Your task to perform on an android device: clear all cookies in the chrome app Image 0: 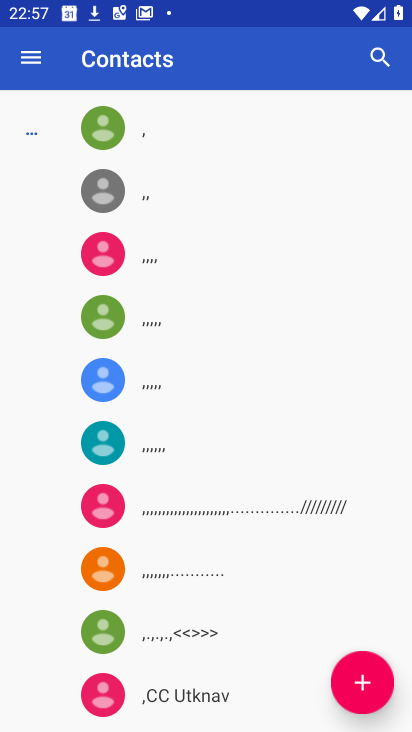
Step 0: press home button
Your task to perform on an android device: clear all cookies in the chrome app Image 1: 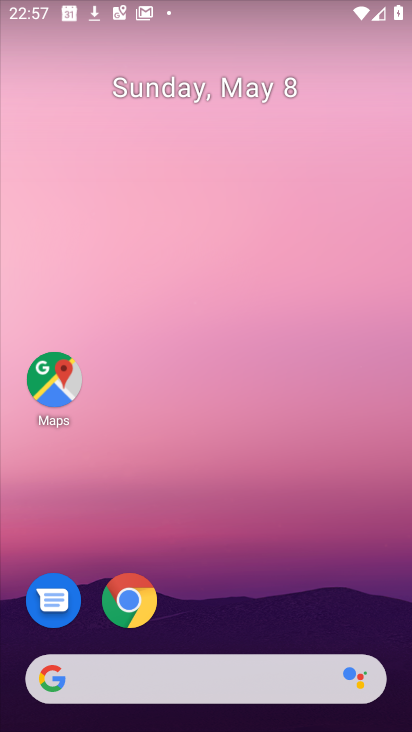
Step 1: drag from (240, 718) to (368, 295)
Your task to perform on an android device: clear all cookies in the chrome app Image 2: 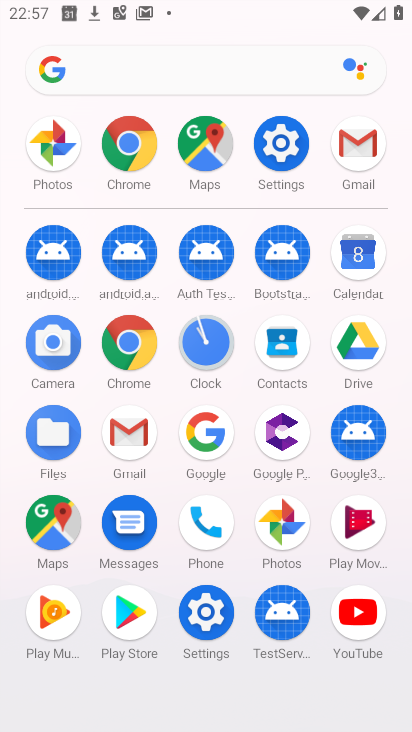
Step 2: click (134, 157)
Your task to perform on an android device: clear all cookies in the chrome app Image 3: 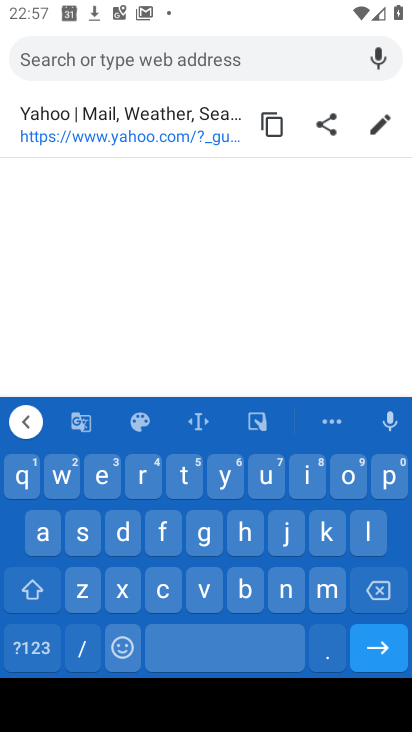
Step 3: press back button
Your task to perform on an android device: clear all cookies in the chrome app Image 4: 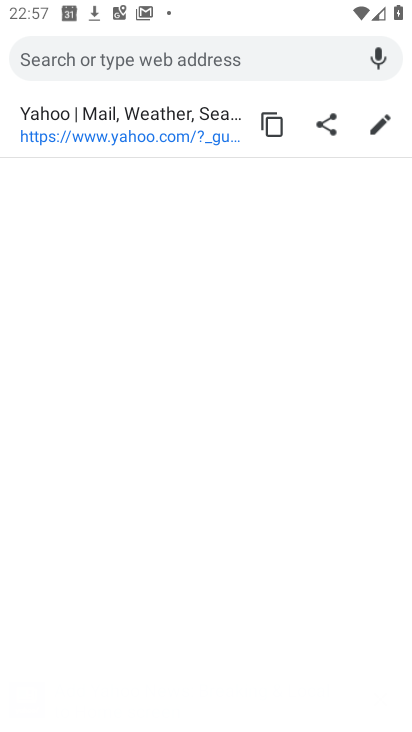
Step 4: press back button
Your task to perform on an android device: clear all cookies in the chrome app Image 5: 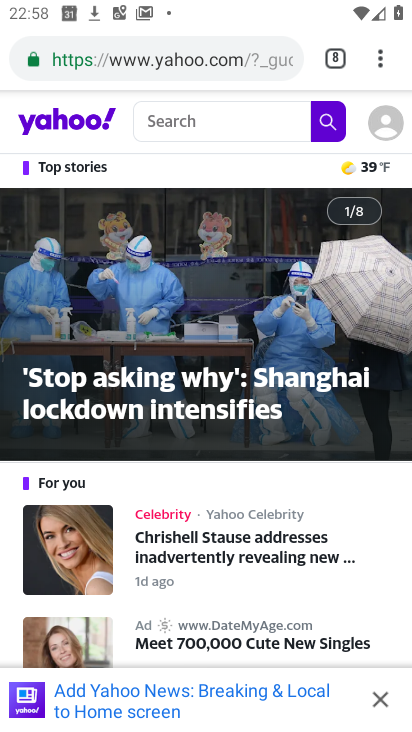
Step 5: click (376, 68)
Your task to perform on an android device: clear all cookies in the chrome app Image 6: 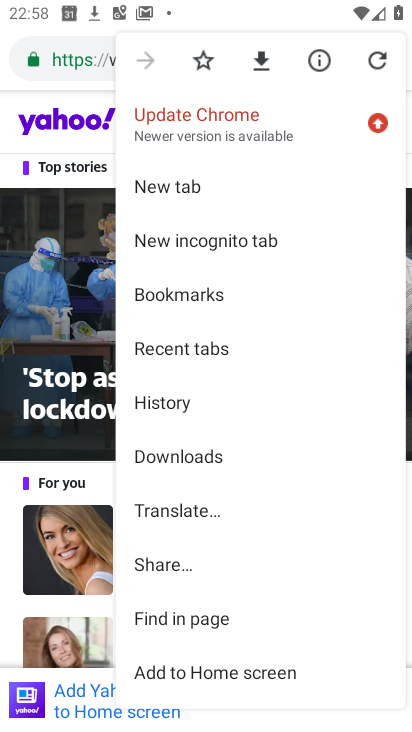
Step 6: drag from (190, 550) to (190, 331)
Your task to perform on an android device: clear all cookies in the chrome app Image 7: 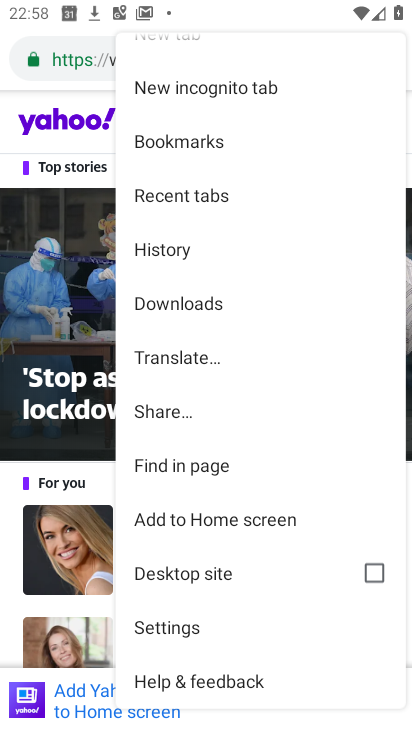
Step 7: click (185, 626)
Your task to perform on an android device: clear all cookies in the chrome app Image 8: 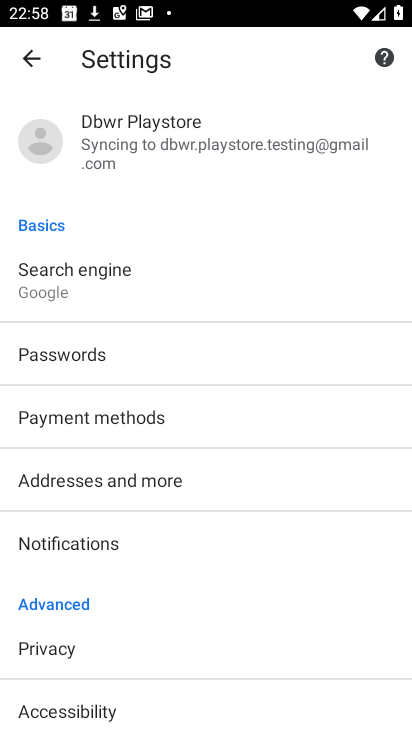
Step 8: drag from (174, 625) to (199, 507)
Your task to perform on an android device: clear all cookies in the chrome app Image 9: 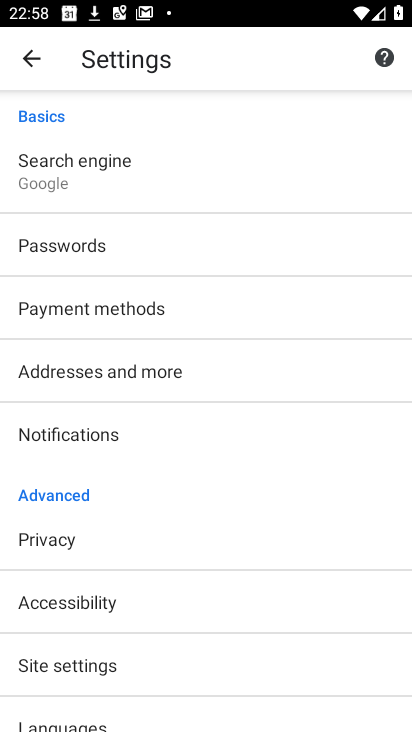
Step 9: click (47, 664)
Your task to perform on an android device: clear all cookies in the chrome app Image 10: 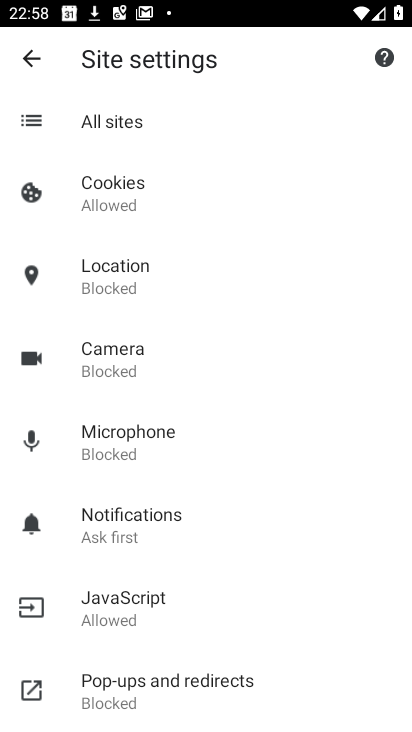
Step 10: click (37, 69)
Your task to perform on an android device: clear all cookies in the chrome app Image 11: 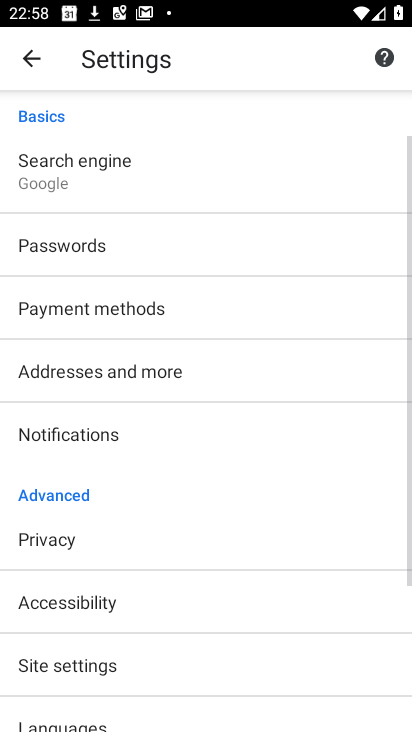
Step 11: click (81, 534)
Your task to perform on an android device: clear all cookies in the chrome app Image 12: 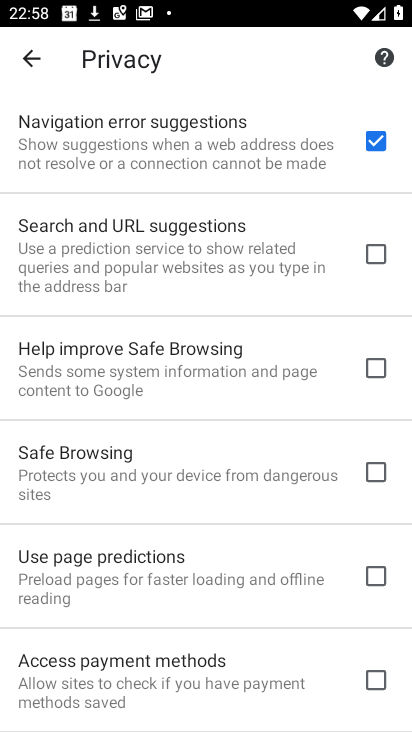
Step 12: drag from (138, 557) to (275, 170)
Your task to perform on an android device: clear all cookies in the chrome app Image 13: 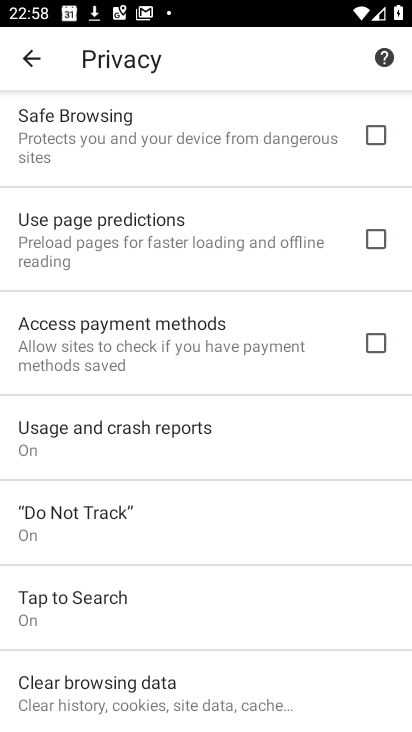
Step 13: click (122, 681)
Your task to perform on an android device: clear all cookies in the chrome app Image 14: 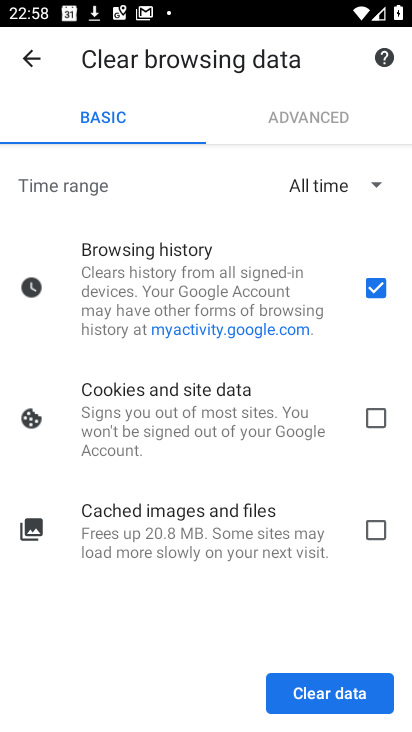
Step 14: click (375, 422)
Your task to perform on an android device: clear all cookies in the chrome app Image 15: 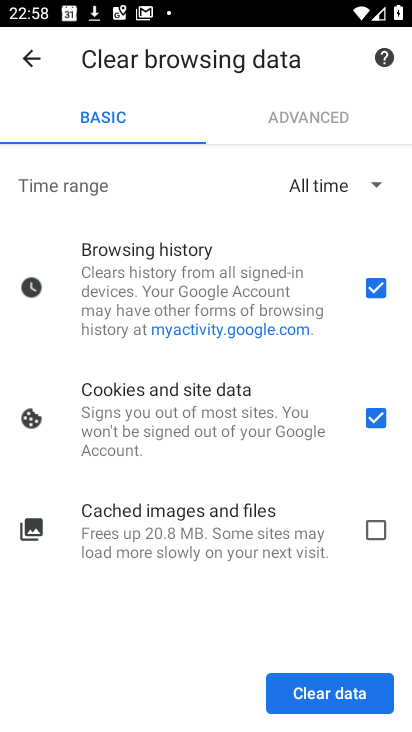
Step 15: click (380, 298)
Your task to perform on an android device: clear all cookies in the chrome app Image 16: 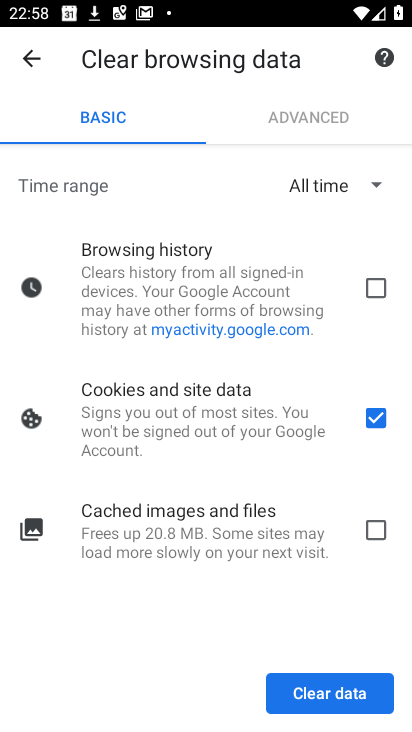
Step 16: click (326, 695)
Your task to perform on an android device: clear all cookies in the chrome app Image 17: 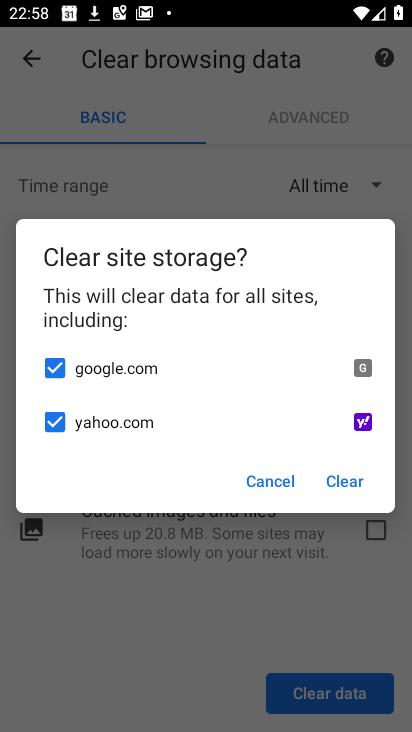
Step 17: task complete